Your task to perform on an android device: turn pop-ups off in chrome Image 0: 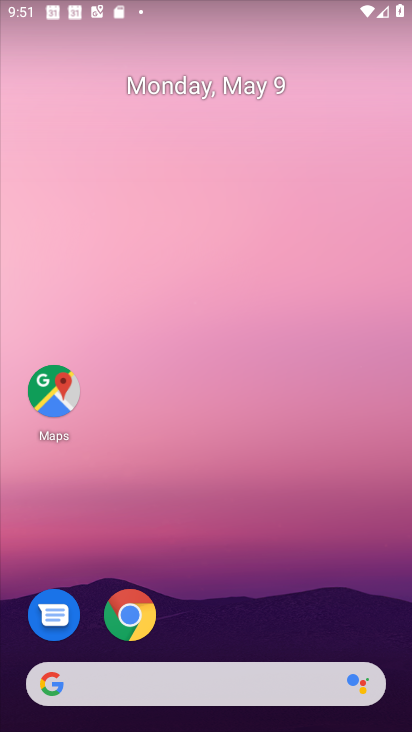
Step 0: drag from (308, 671) to (196, 365)
Your task to perform on an android device: turn pop-ups off in chrome Image 1: 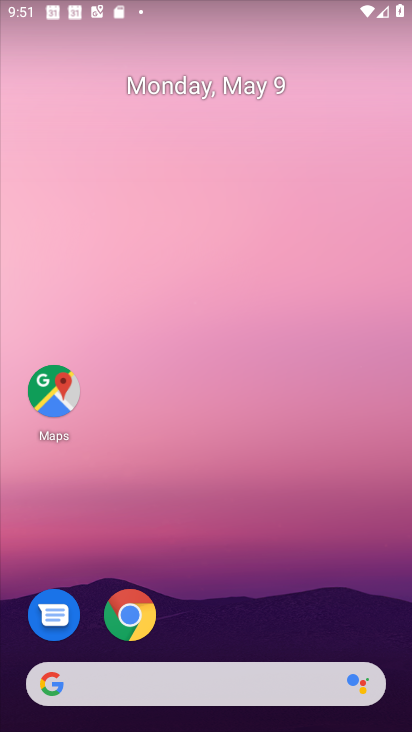
Step 1: drag from (302, 714) to (163, 225)
Your task to perform on an android device: turn pop-ups off in chrome Image 2: 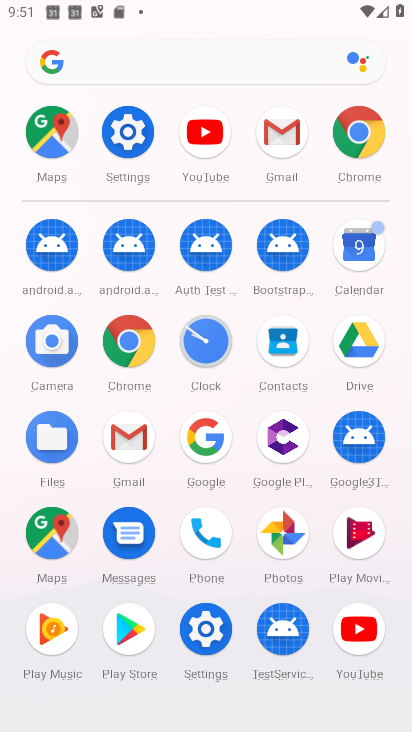
Step 2: click (346, 146)
Your task to perform on an android device: turn pop-ups off in chrome Image 3: 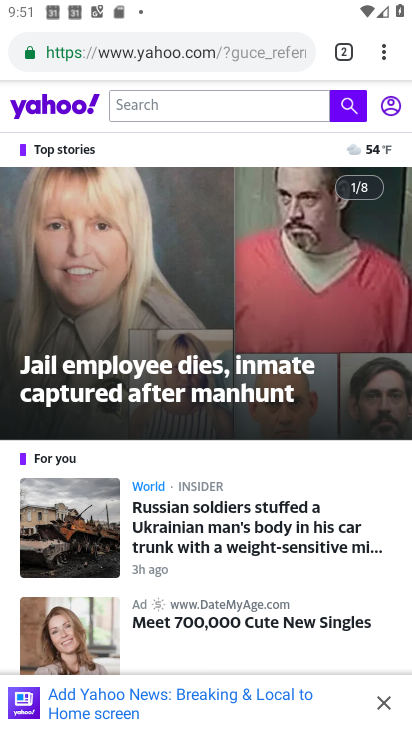
Step 3: click (390, 68)
Your task to perform on an android device: turn pop-ups off in chrome Image 4: 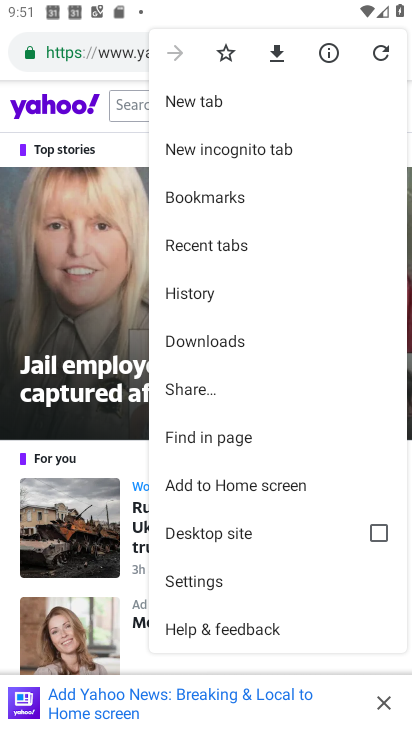
Step 4: click (201, 593)
Your task to perform on an android device: turn pop-ups off in chrome Image 5: 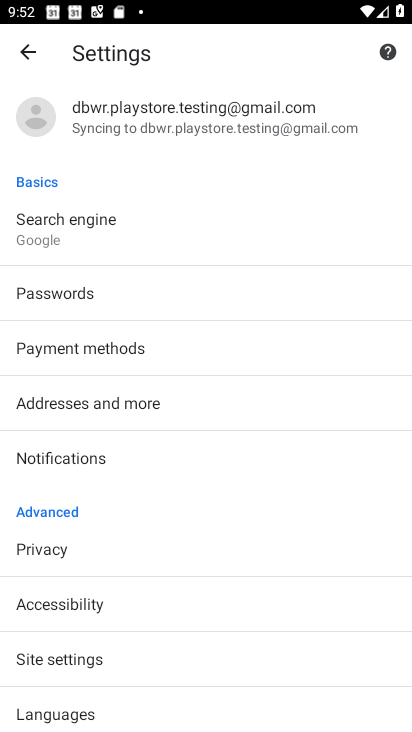
Step 5: click (66, 661)
Your task to perform on an android device: turn pop-ups off in chrome Image 6: 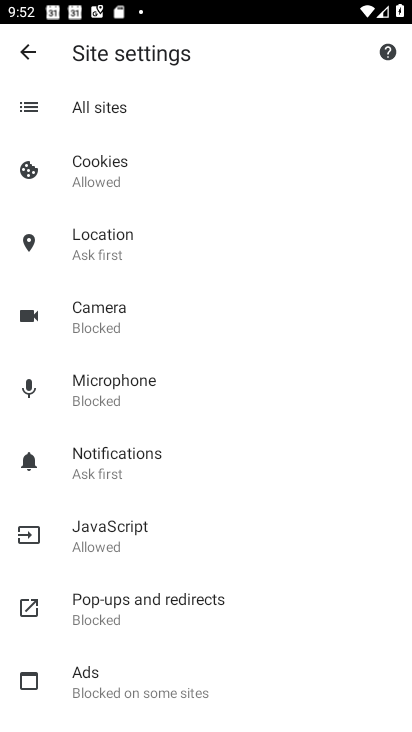
Step 6: click (134, 619)
Your task to perform on an android device: turn pop-ups off in chrome Image 7: 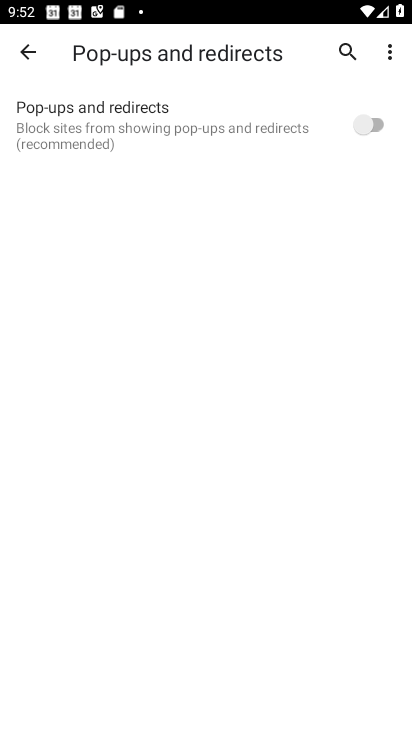
Step 7: click (370, 130)
Your task to perform on an android device: turn pop-ups off in chrome Image 8: 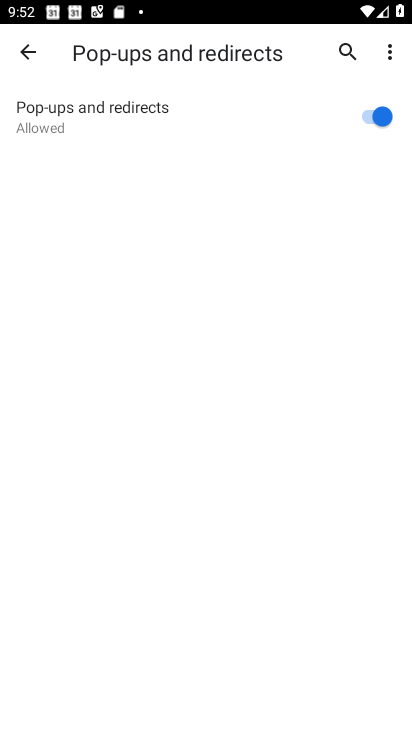
Step 8: click (370, 129)
Your task to perform on an android device: turn pop-ups off in chrome Image 9: 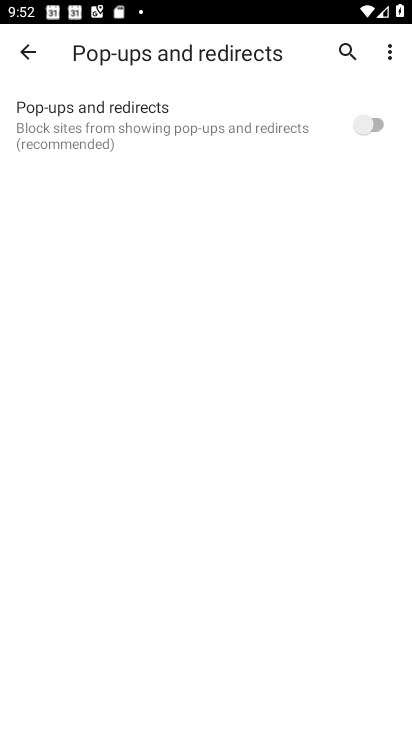
Step 9: task complete